Your task to perform on an android device: remove spam from my inbox in the gmail app Image 0: 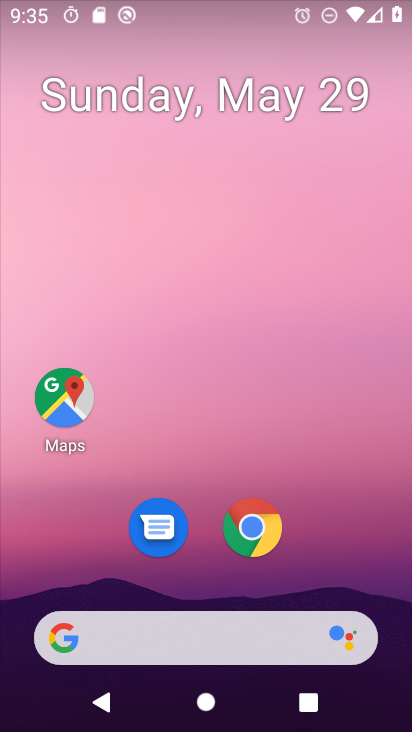
Step 0: drag from (383, 631) to (307, 12)
Your task to perform on an android device: remove spam from my inbox in the gmail app Image 1: 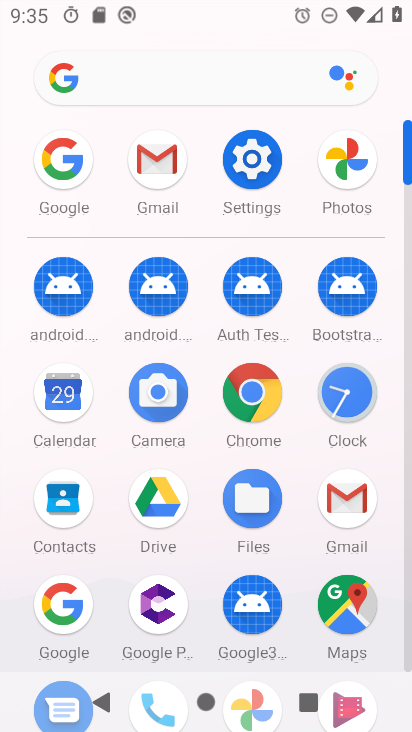
Step 1: click (334, 486)
Your task to perform on an android device: remove spam from my inbox in the gmail app Image 2: 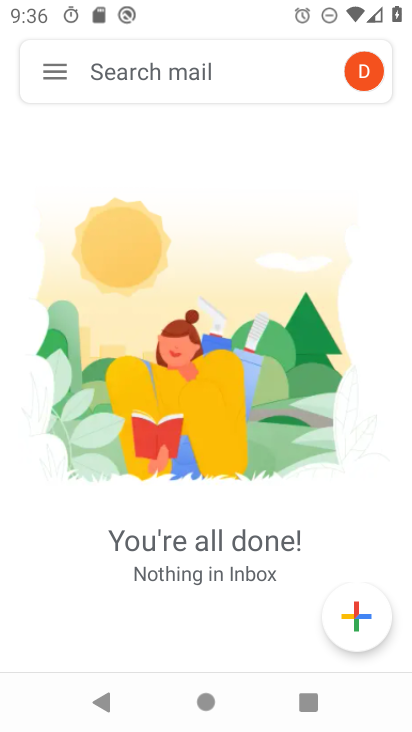
Step 2: click (48, 75)
Your task to perform on an android device: remove spam from my inbox in the gmail app Image 3: 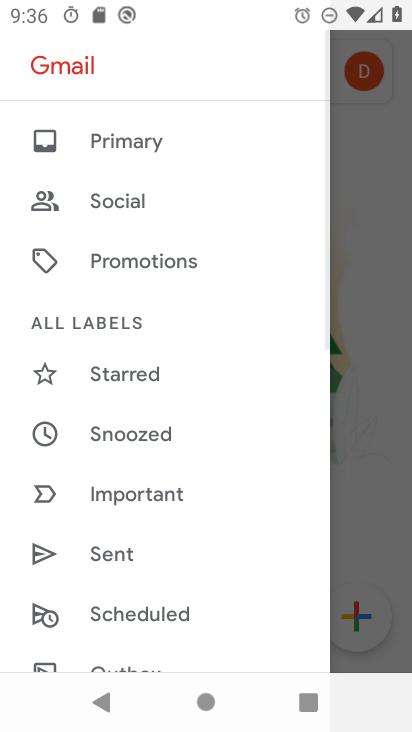
Step 3: drag from (114, 584) to (139, 124)
Your task to perform on an android device: remove spam from my inbox in the gmail app Image 4: 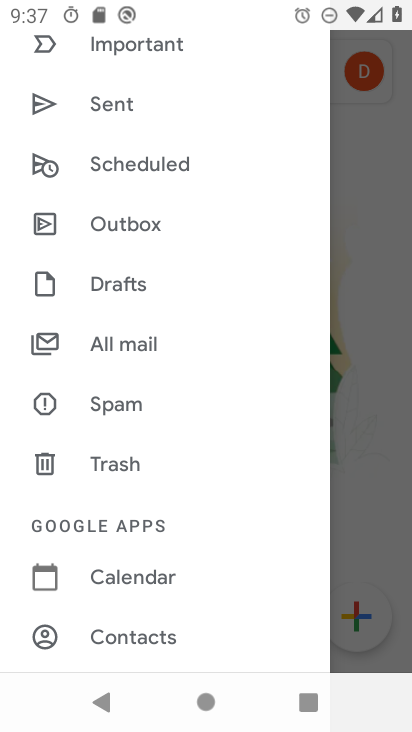
Step 4: click (160, 406)
Your task to perform on an android device: remove spam from my inbox in the gmail app Image 5: 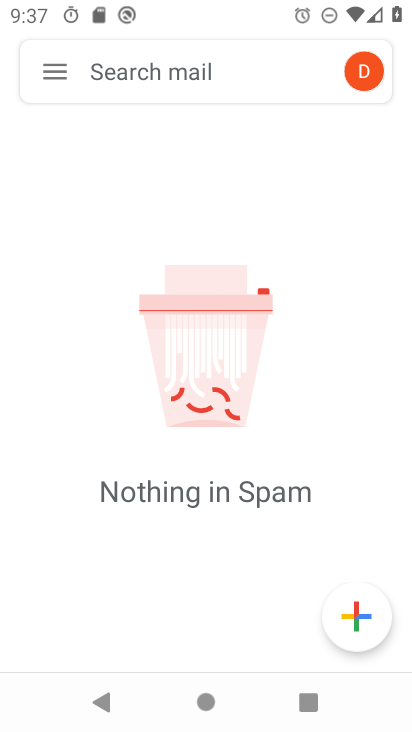
Step 5: task complete